Your task to perform on an android device: Go to display settings Image 0: 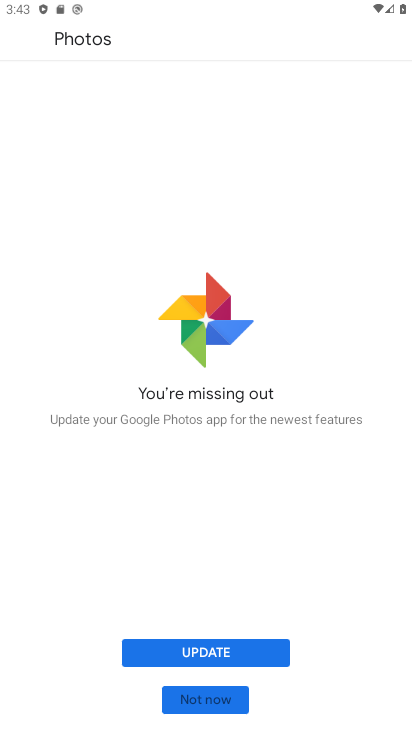
Step 0: press home button
Your task to perform on an android device: Go to display settings Image 1: 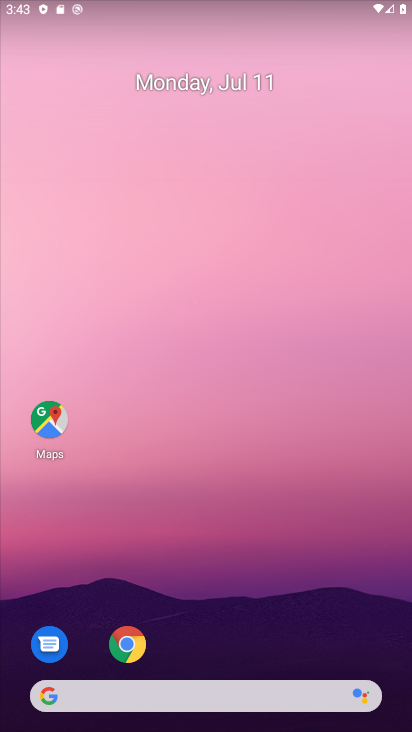
Step 1: drag from (218, 659) to (225, 0)
Your task to perform on an android device: Go to display settings Image 2: 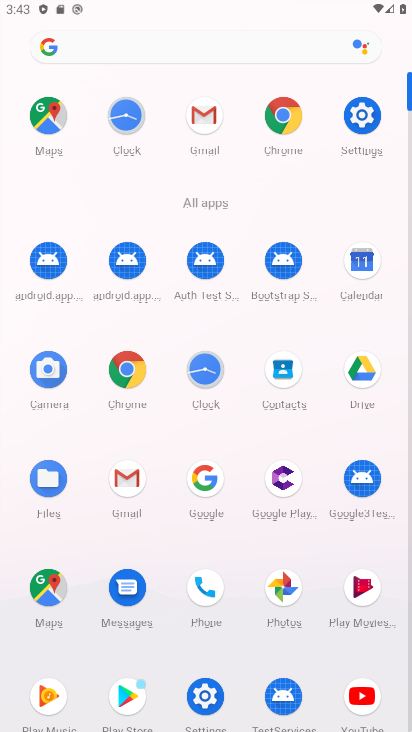
Step 2: click (362, 108)
Your task to perform on an android device: Go to display settings Image 3: 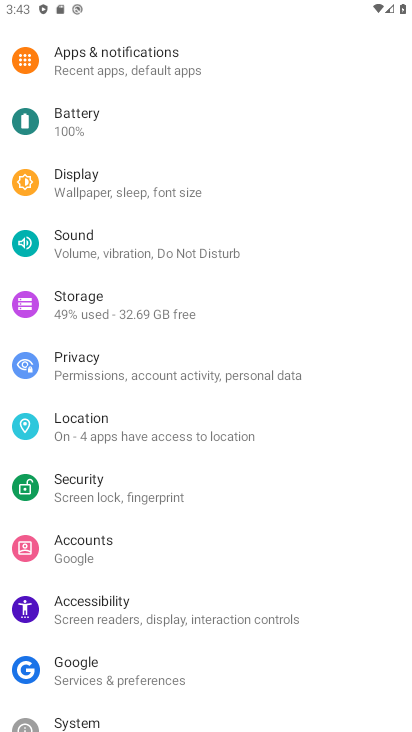
Step 3: click (103, 171)
Your task to perform on an android device: Go to display settings Image 4: 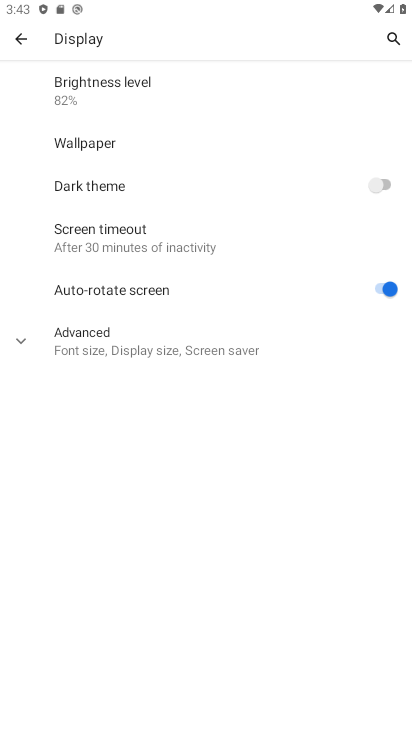
Step 4: click (27, 337)
Your task to perform on an android device: Go to display settings Image 5: 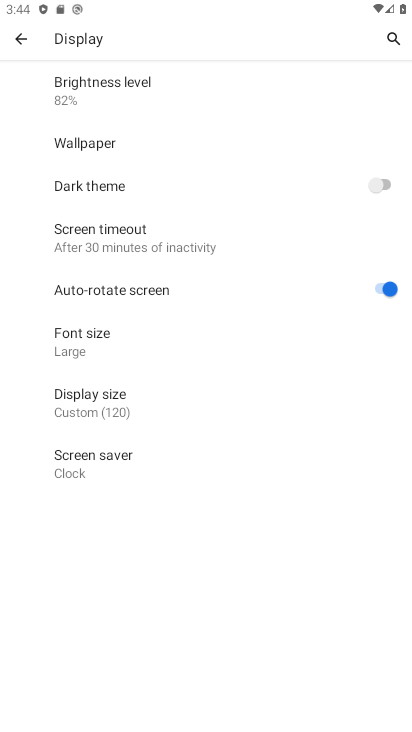
Step 5: task complete